Your task to perform on an android device: toggle wifi Image 0: 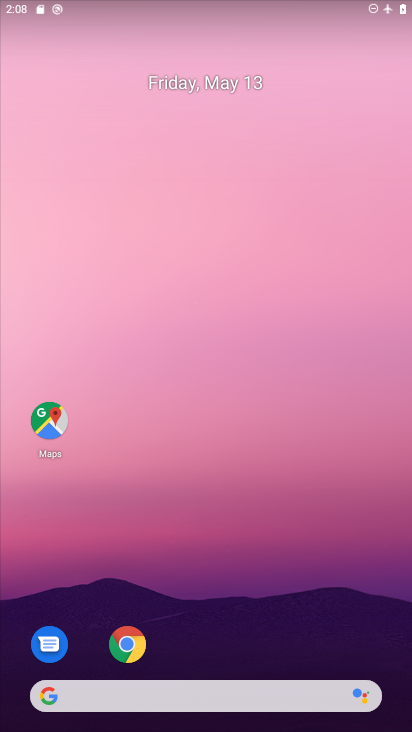
Step 0: drag from (363, 644) to (251, 95)
Your task to perform on an android device: toggle wifi Image 1: 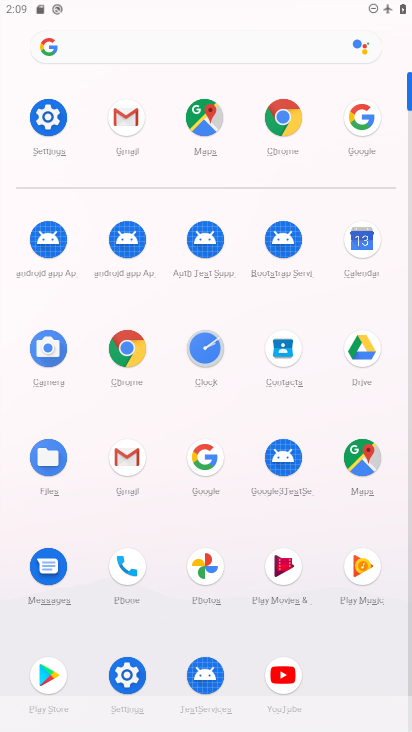
Step 1: drag from (195, 1) to (263, 532)
Your task to perform on an android device: toggle wifi Image 2: 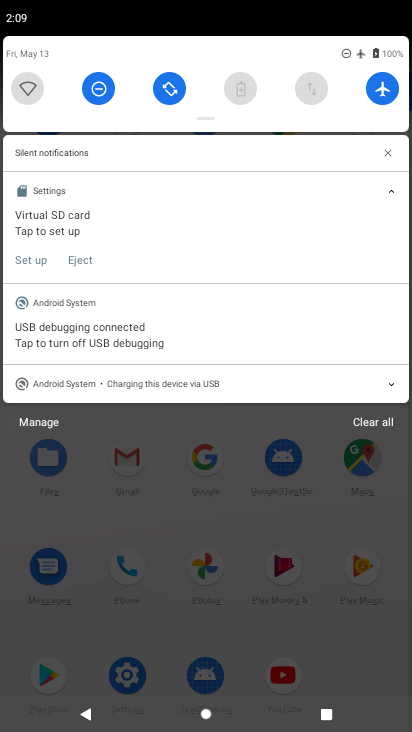
Step 2: click (30, 82)
Your task to perform on an android device: toggle wifi Image 3: 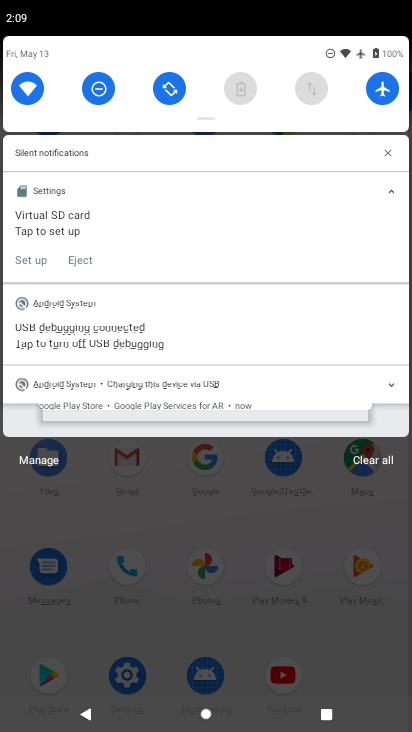
Step 3: task complete